Your task to perform on an android device: empty trash in the gmail app Image 0: 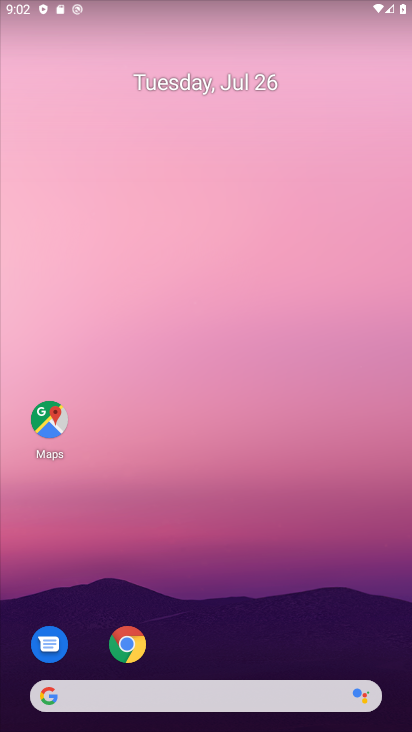
Step 0: drag from (209, 644) to (268, 0)
Your task to perform on an android device: empty trash in the gmail app Image 1: 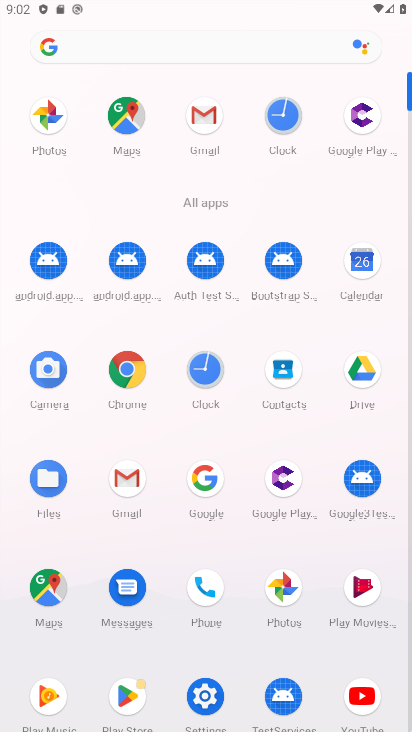
Step 1: click (121, 481)
Your task to perform on an android device: empty trash in the gmail app Image 2: 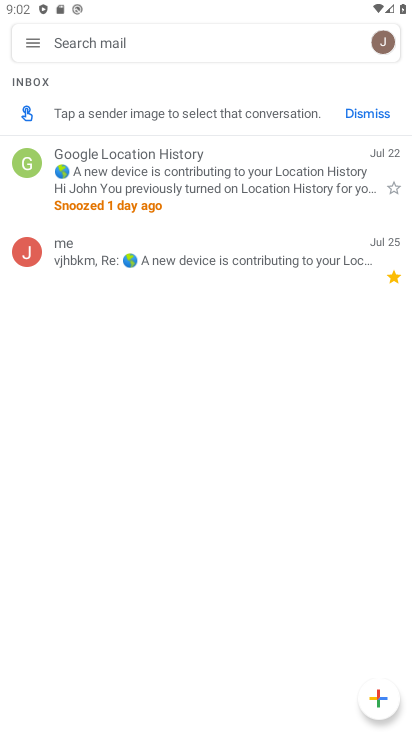
Step 2: click (31, 45)
Your task to perform on an android device: empty trash in the gmail app Image 3: 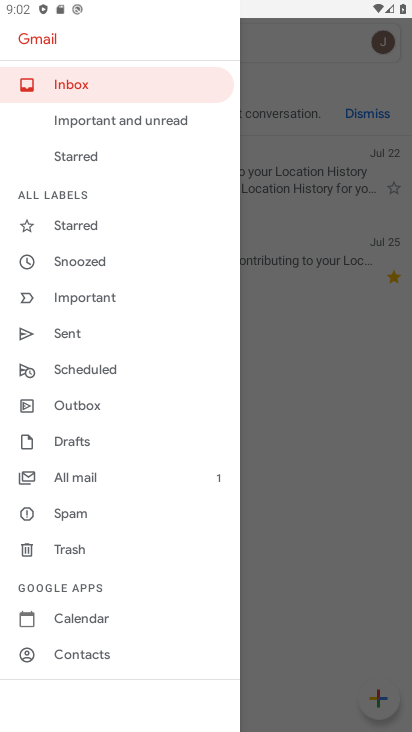
Step 3: click (73, 552)
Your task to perform on an android device: empty trash in the gmail app Image 4: 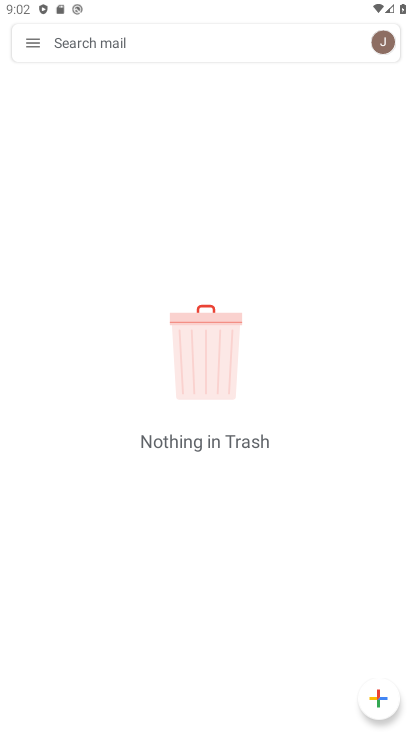
Step 4: task complete